Your task to perform on an android device: Go to Maps Image 0: 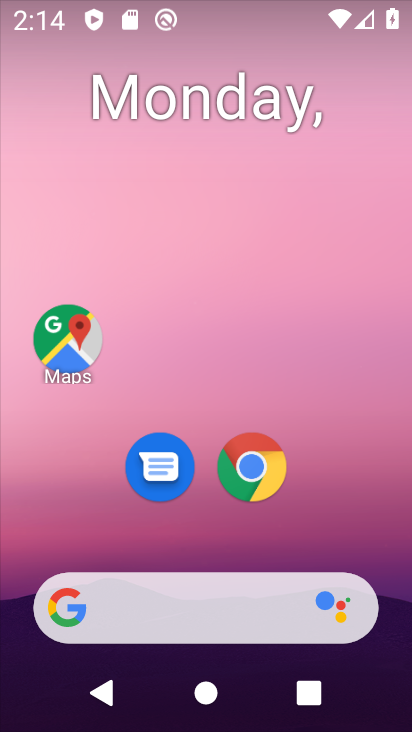
Step 0: click (73, 326)
Your task to perform on an android device: Go to Maps Image 1: 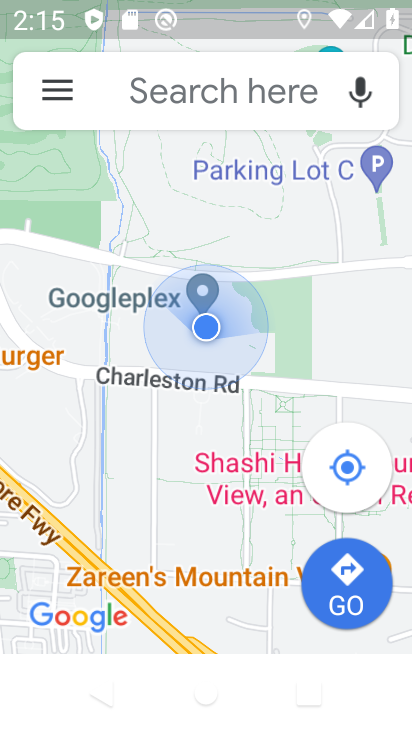
Step 1: task complete